Your task to perform on an android device: turn off priority inbox in the gmail app Image 0: 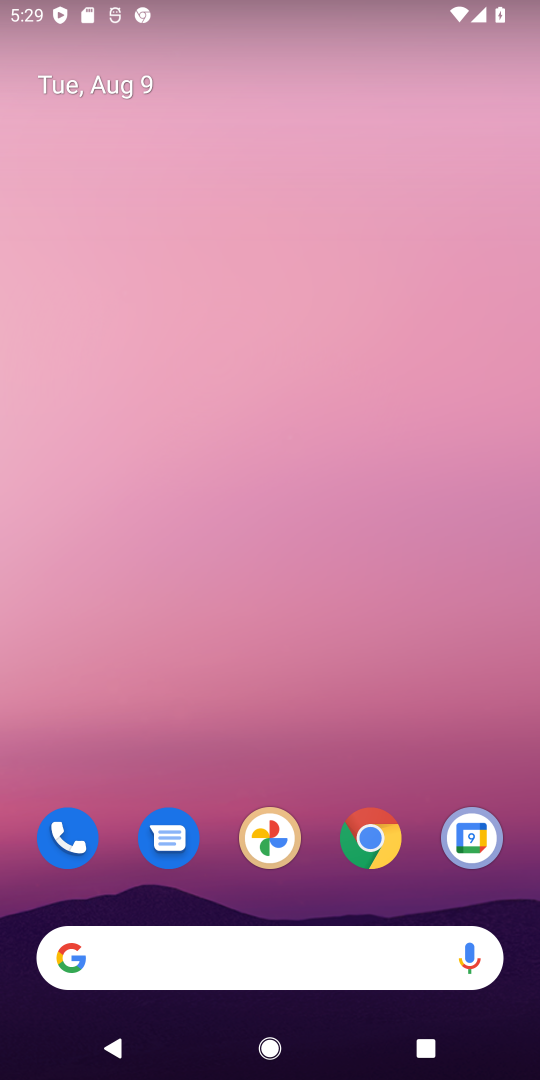
Step 0: drag from (223, 756) to (159, 151)
Your task to perform on an android device: turn off priority inbox in the gmail app Image 1: 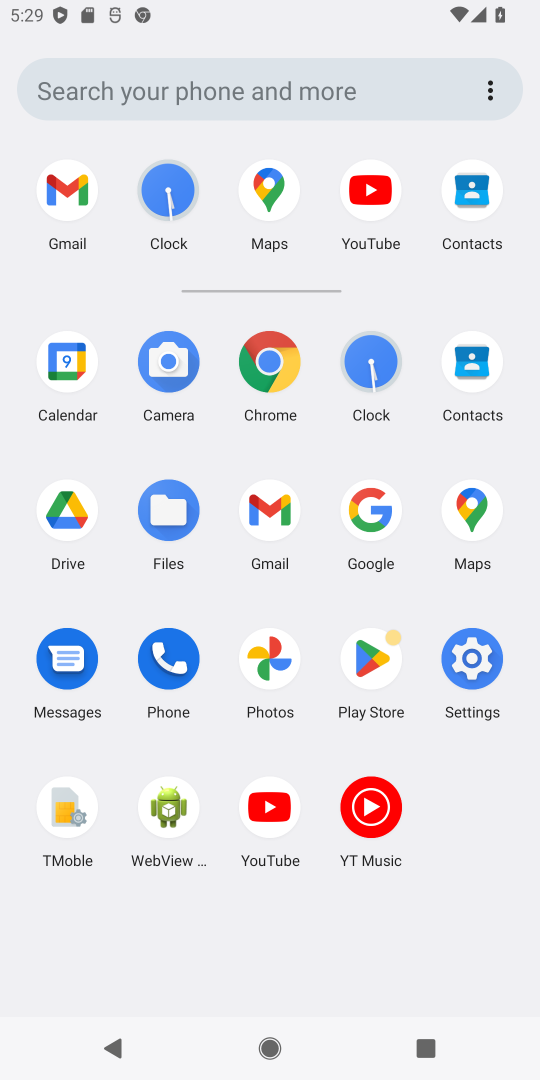
Step 1: click (74, 204)
Your task to perform on an android device: turn off priority inbox in the gmail app Image 2: 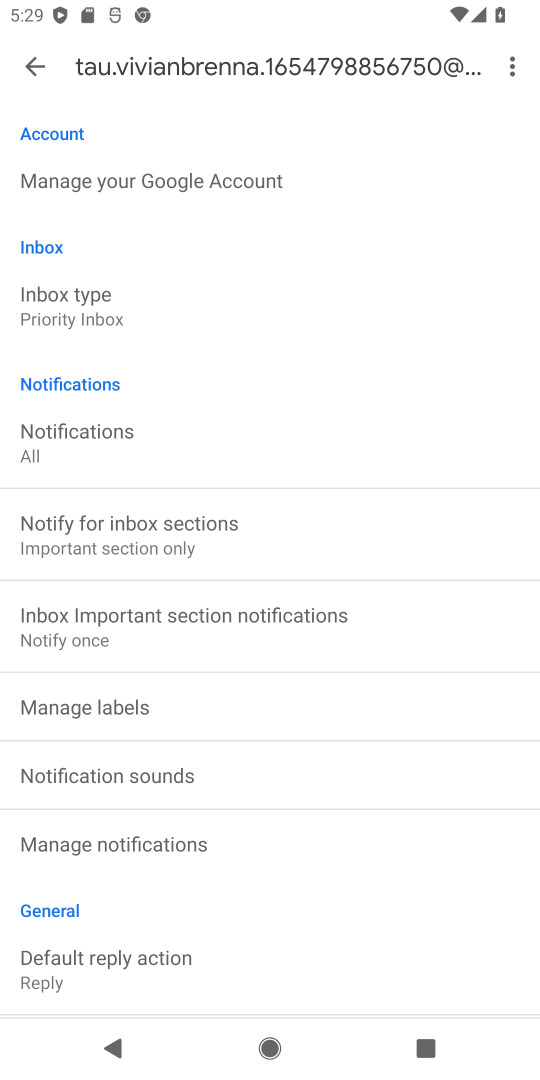
Step 2: click (149, 327)
Your task to perform on an android device: turn off priority inbox in the gmail app Image 3: 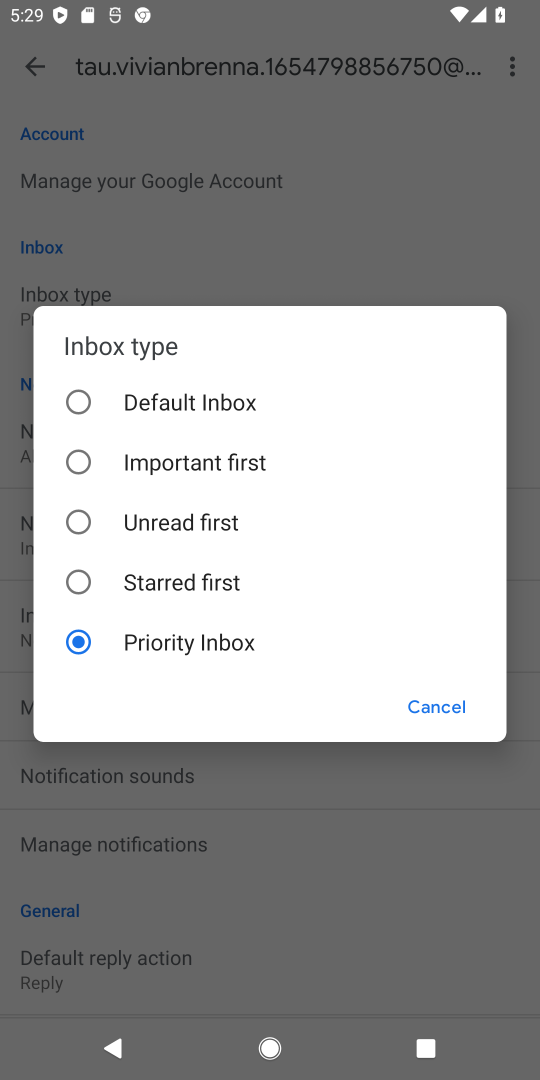
Step 3: click (174, 396)
Your task to perform on an android device: turn off priority inbox in the gmail app Image 4: 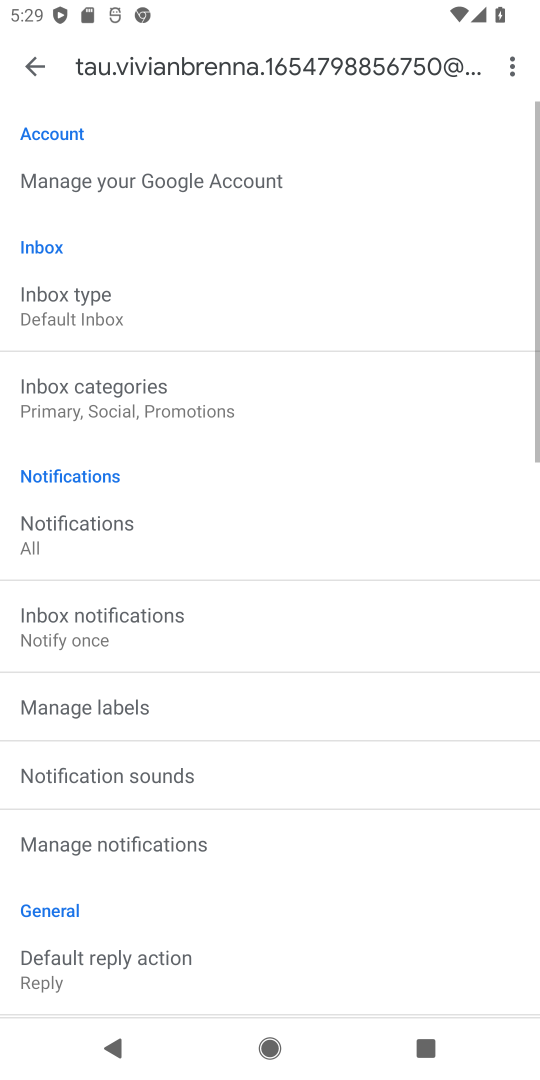
Step 4: task complete